Your task to perform on an android device: choose inbox layout in the gmail app Image 0: 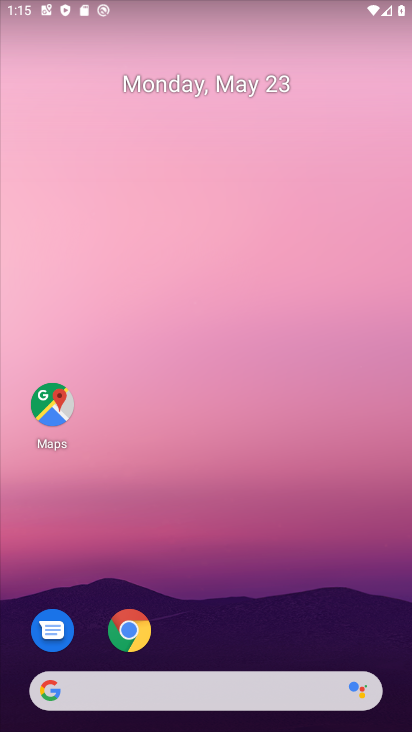
Step 0: drag from (255, 618) to (256, 114)
Your task to perform on an android device: choose inbox layout in the gmail app Image 1: 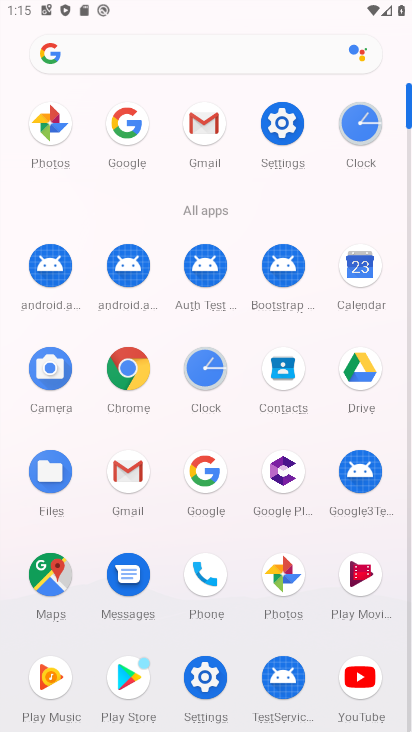
Step 1: click (203, 143)
Your task to perform on an android device: choose inbox layout in the gmail app Image 2: 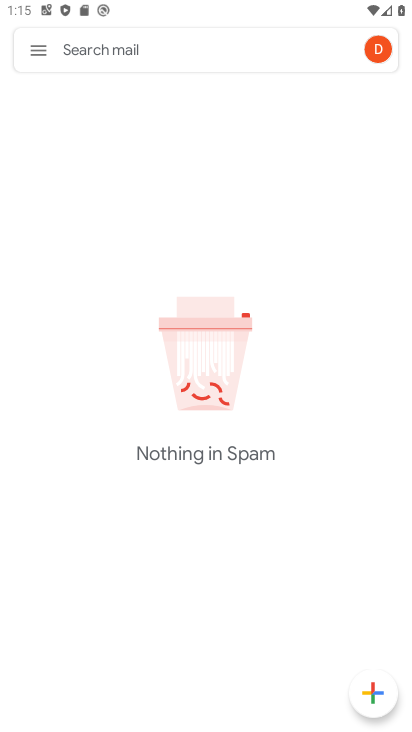
Step 2: click (38, 45)
Your task to perform on an android device: choose inbox layout in the gmail app Image 3: 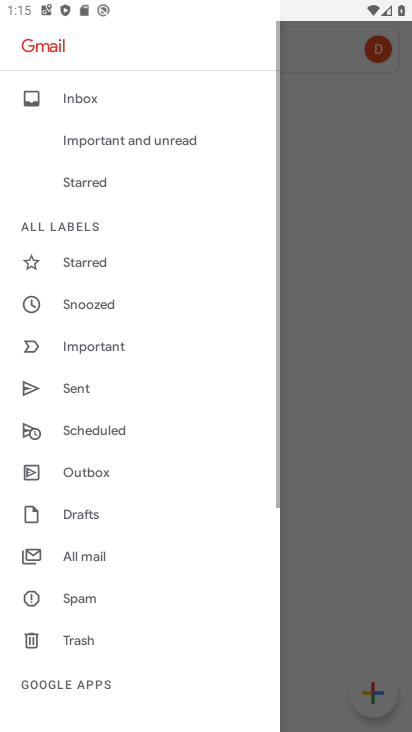
Step 3: drag from (71, 639) to (108, 283)
Your task to perform on an android device: choose inbox layout in the gmail app Image 4: 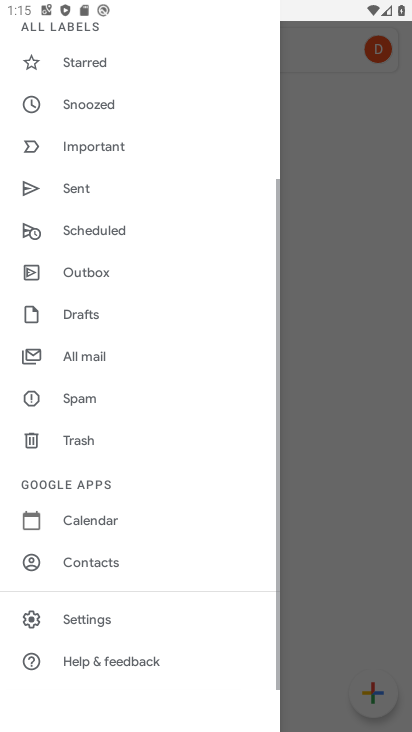
Step 4: click (72, 619)
Your task to perform on an android device: choose inbox layout in the gmail app Image 5: 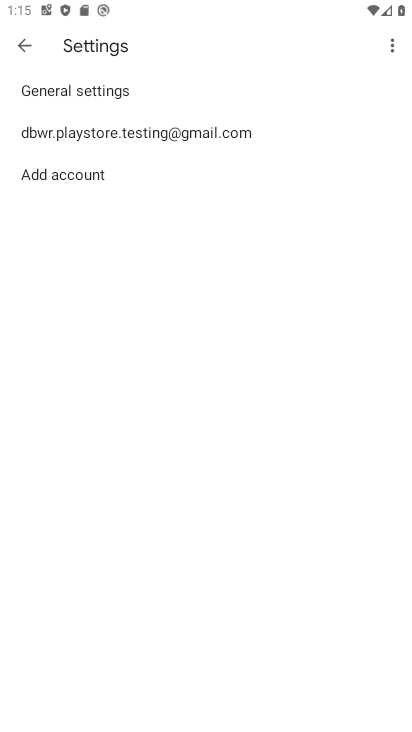
Step 5: click (79, 124)
Your task to perform on an android device: choose inbox layout in the gmail app Image 6: 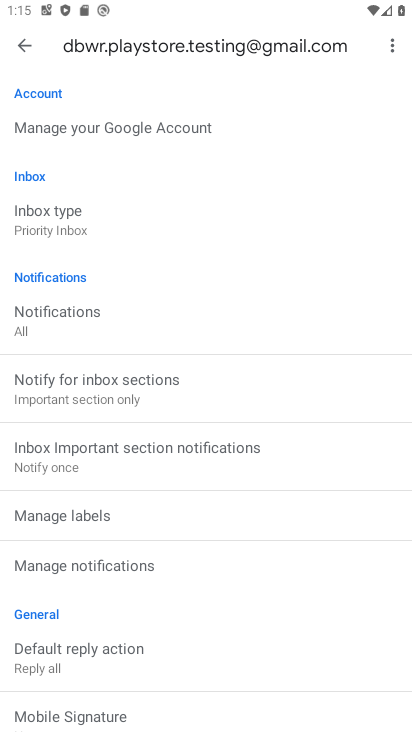
Step 6: click (46, 226)
Your task to perform on an android device: choose inbox layout in the gmail app Image 7: 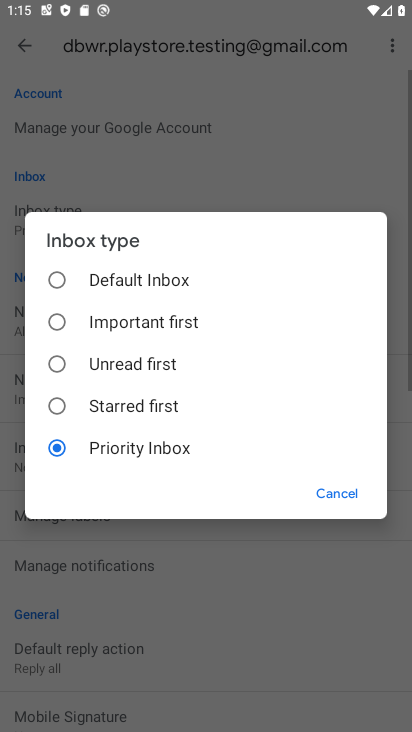
Step 7: click (60, 282)
Your task to perform on an android device: choose inbox layout in the gmail app Image 8: 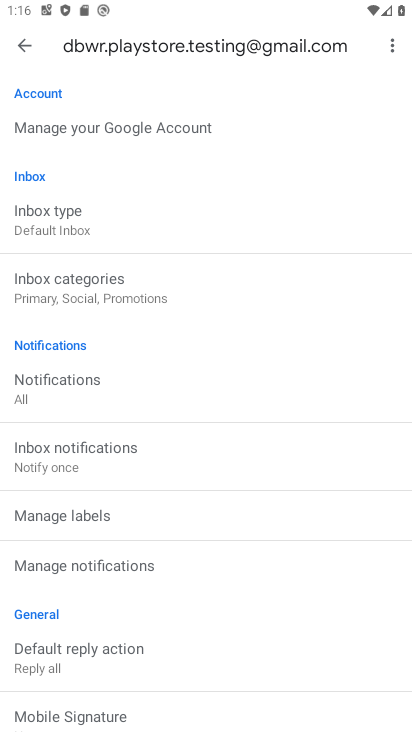
Step 8: task complete